Your task to perform on an android device: Is it going to rain tomorrow? Image 0: 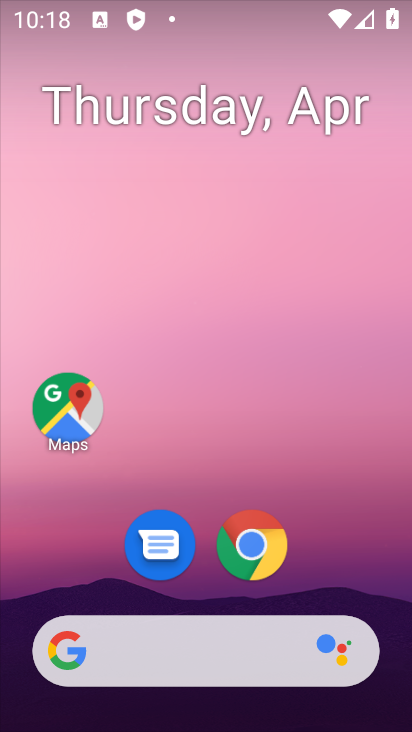
Step 0: click (126, 651)
Your task to perform on an android device: Is it going to rain tomorrow? Image 1: 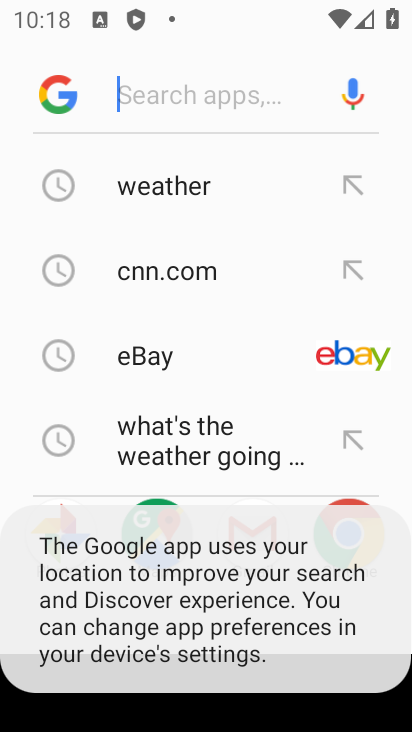
Step 1: click (184, 194)
Your task to perform on an android device: Is it going to rain tomorrow? Image 2: 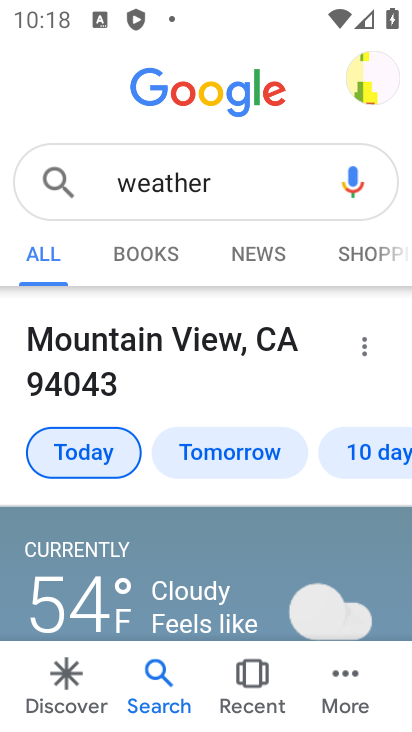
Step 2: drag from (239, 549) to (344, 250)
Your task to perform on an android device: Is it going to rain tomorrow? Image 3: 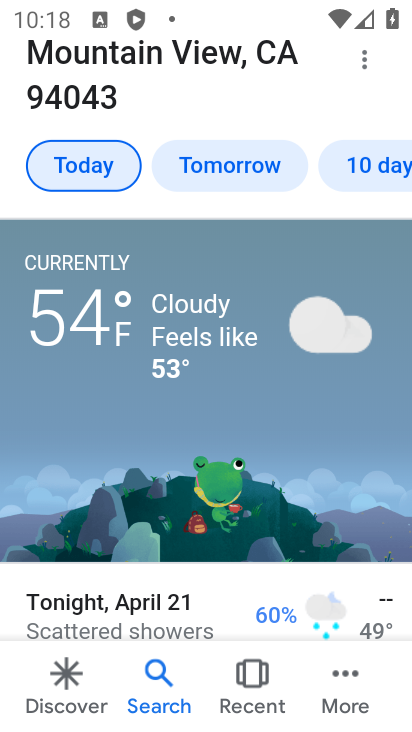
Step 3: click (223, 153)
Your task to perform on an android device: Is it going to rain tomorrow? Image 4: 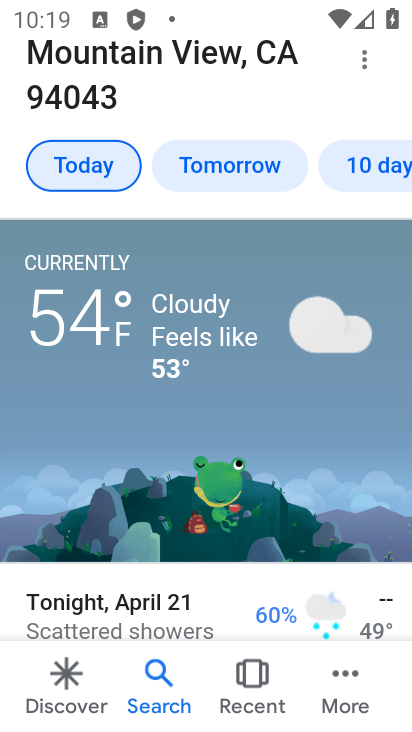
Step 4: click (229, 158)
Your task to perform on an android device: Is it going to rain tomorrow? Image 5: 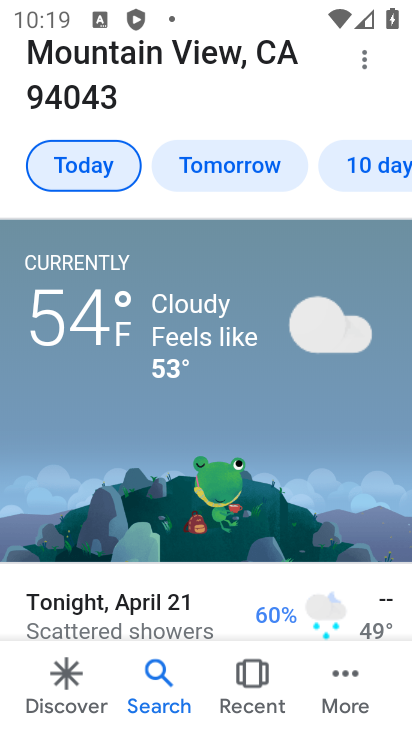
Step 5: task complete